Your task to perform on an android device: Open the calendar and show me this week's events? Image 0: 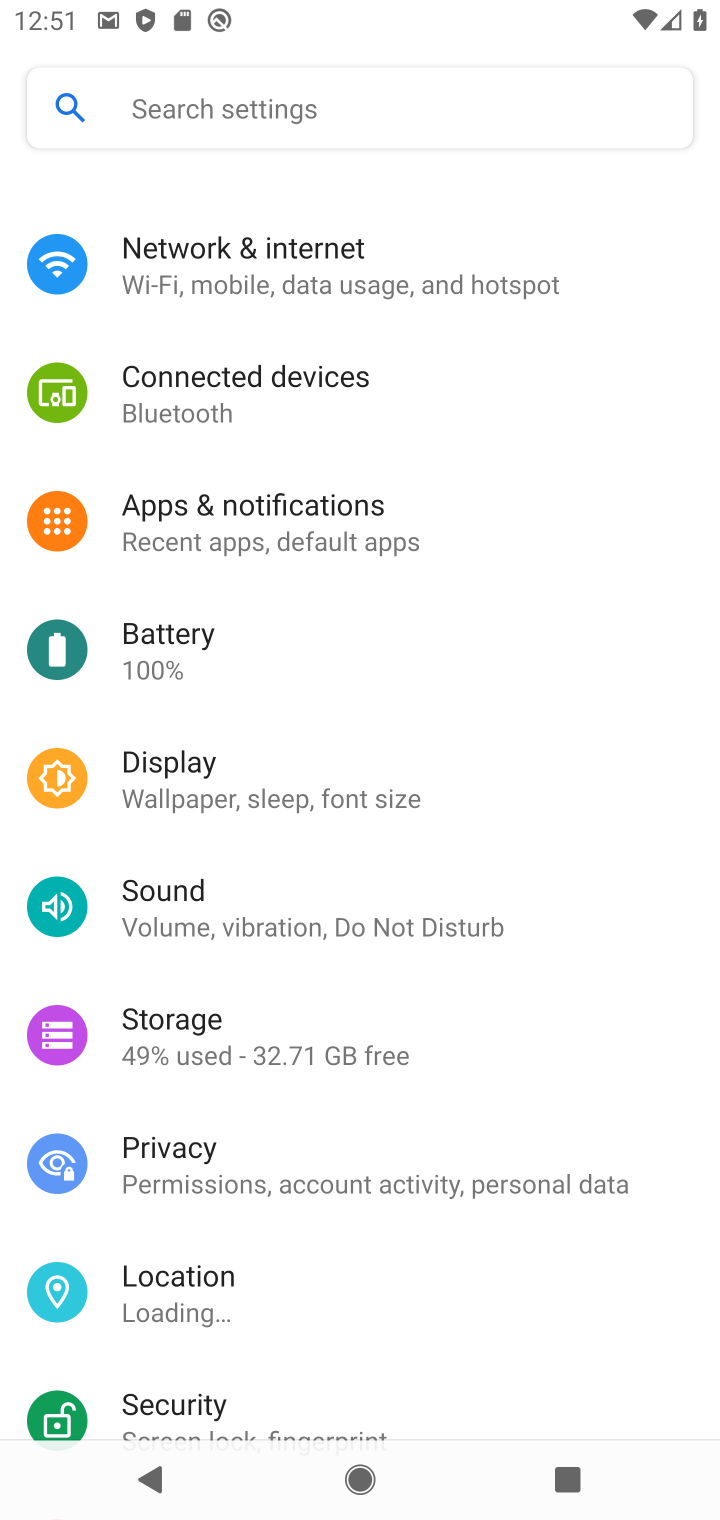
Step 0: press home button
Your task to perform on an android device: Open the calendar and show me this week's events? Image 1: 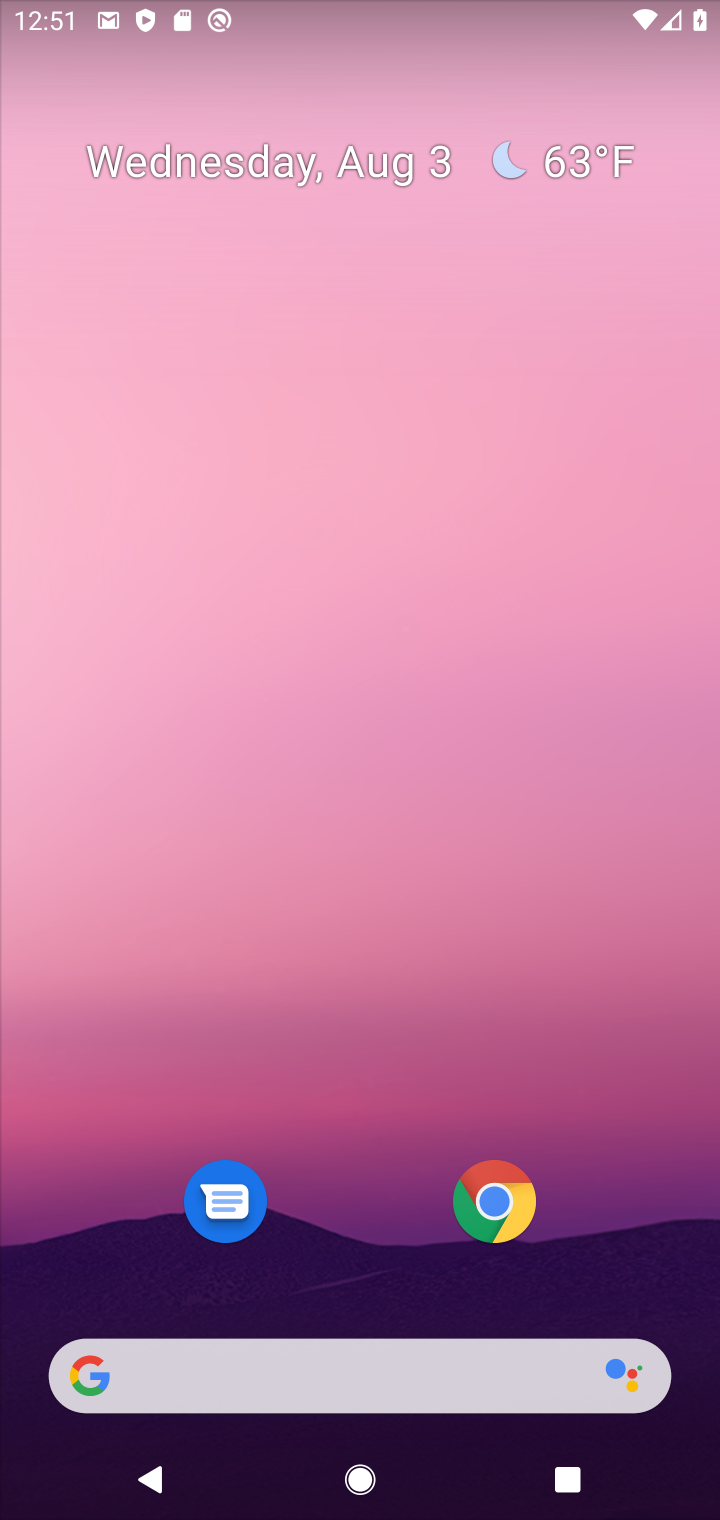
Step 1: drag from (404, 1030) to (486, 134)
Your task to perform on an android device: Open the calendar and show me this week's events? Image 2: 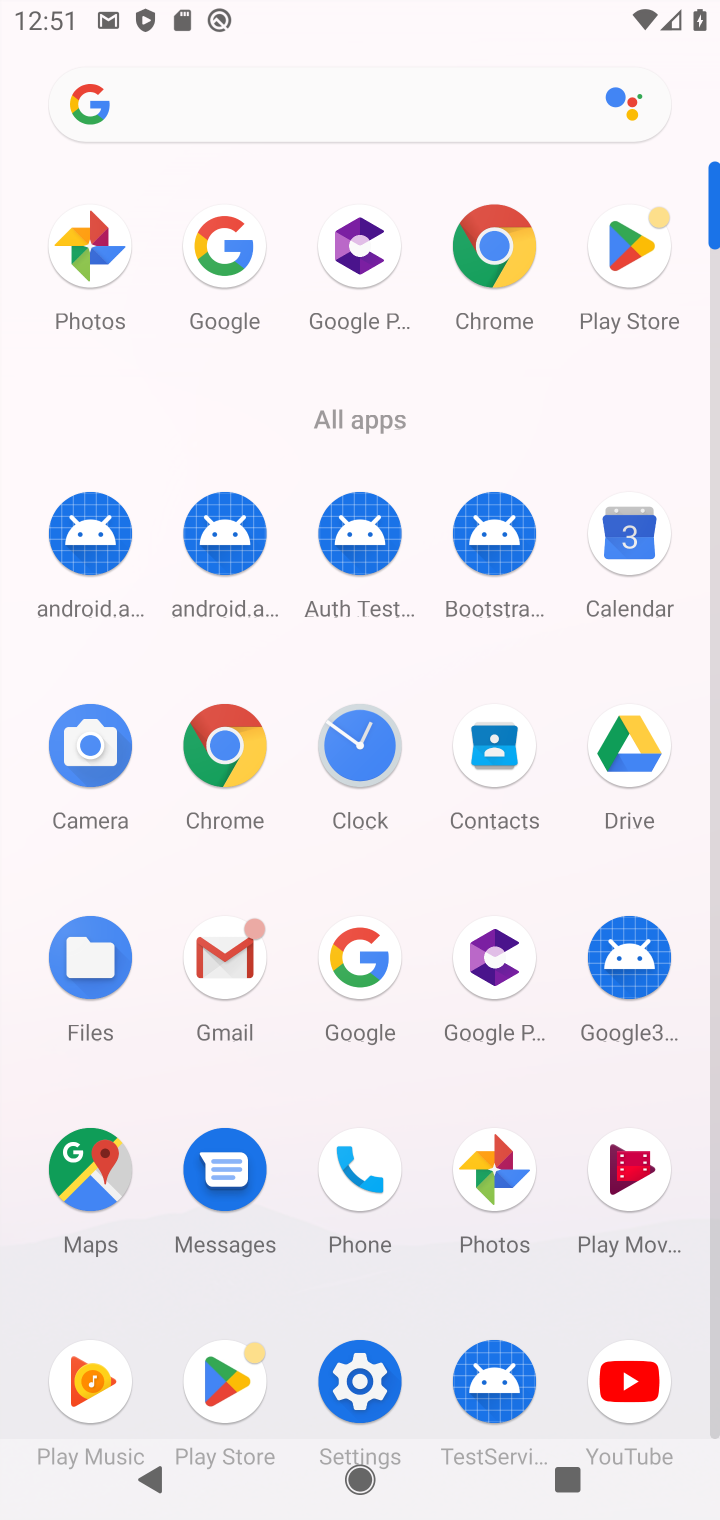
Step 2: click (634, 542)
Your task to perform on an android device: Open the calendar and show me this week's events? Image 3: 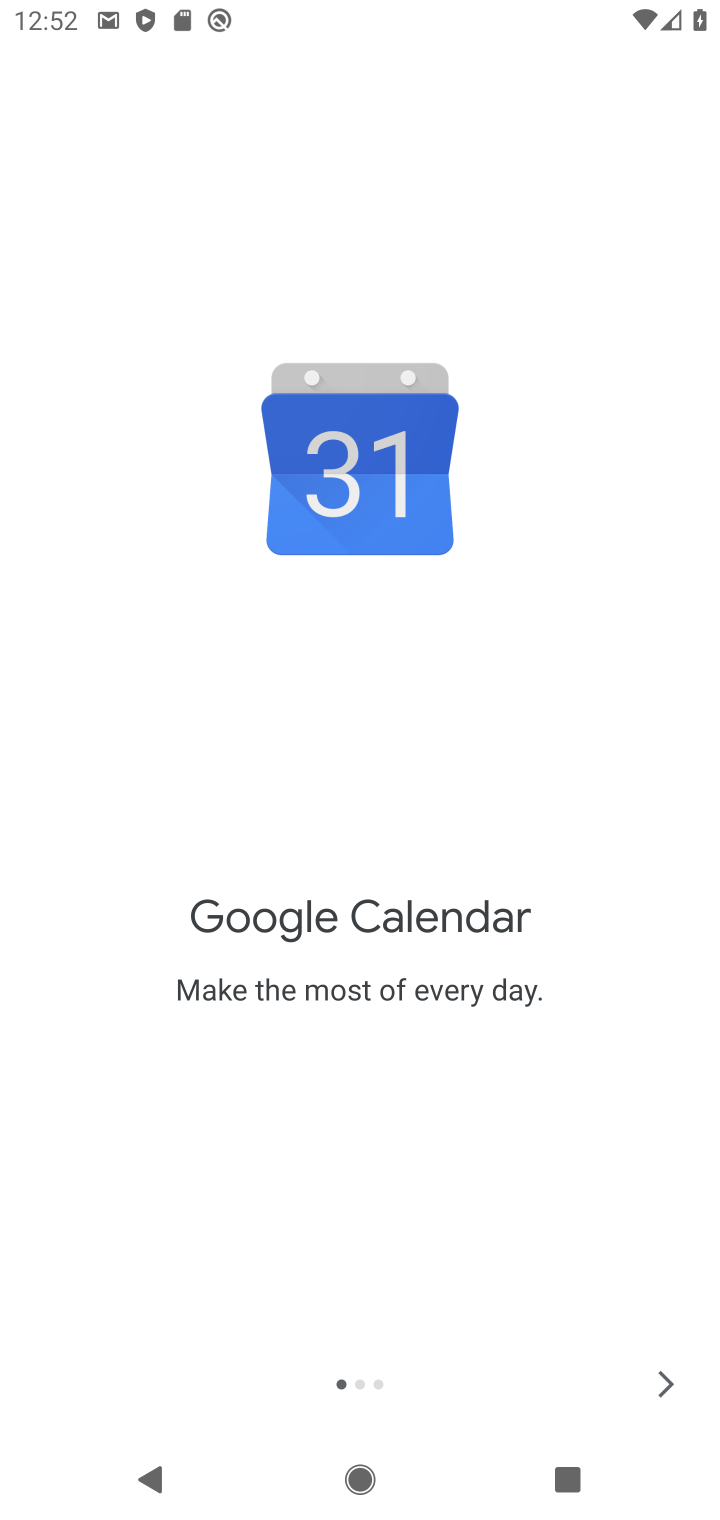
Step 3: click (665, 1389)
Your task to perform on an android device: Open the calendar and show me this week's events? Image 4: 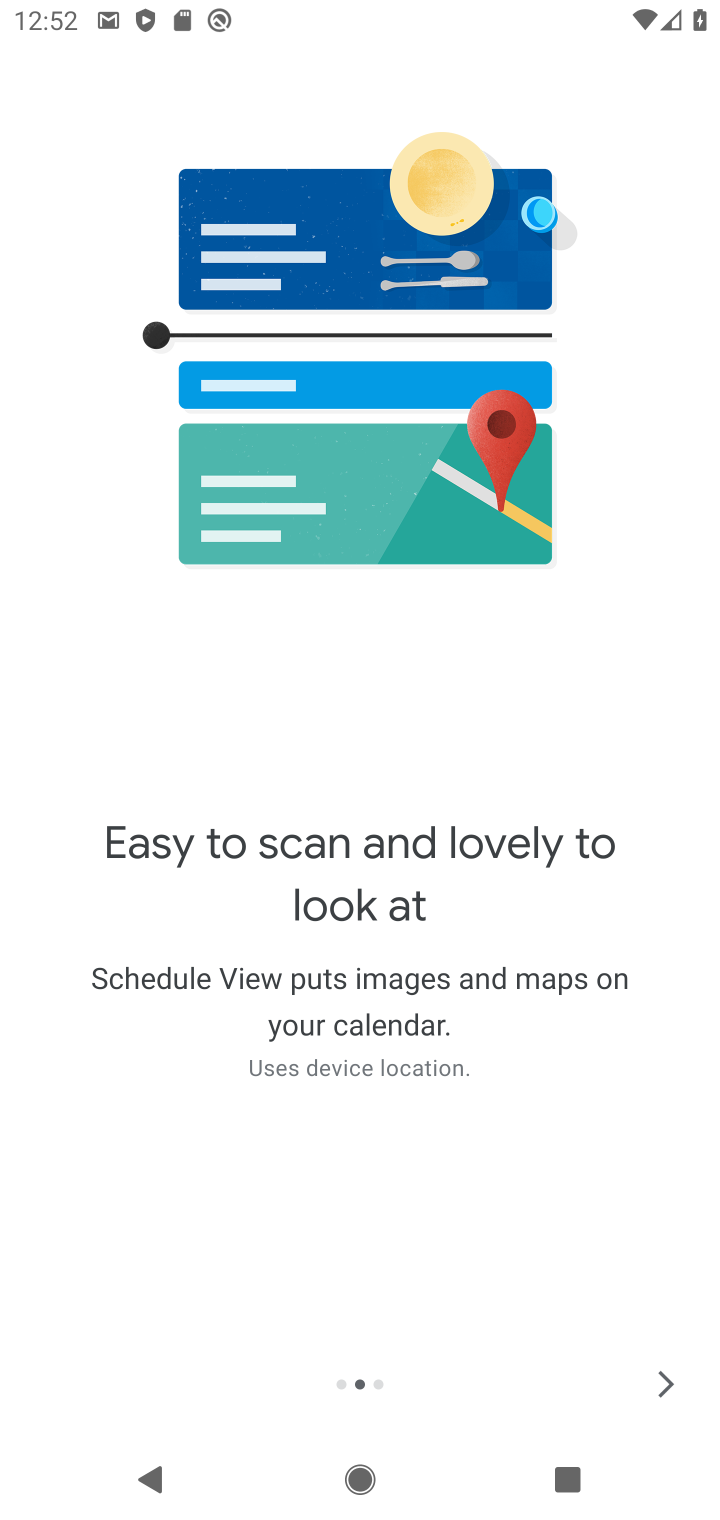
Step 4: click (665, 1389)
Your task to perform on an android device: Open the calendar and show me this week's events? Image 5: 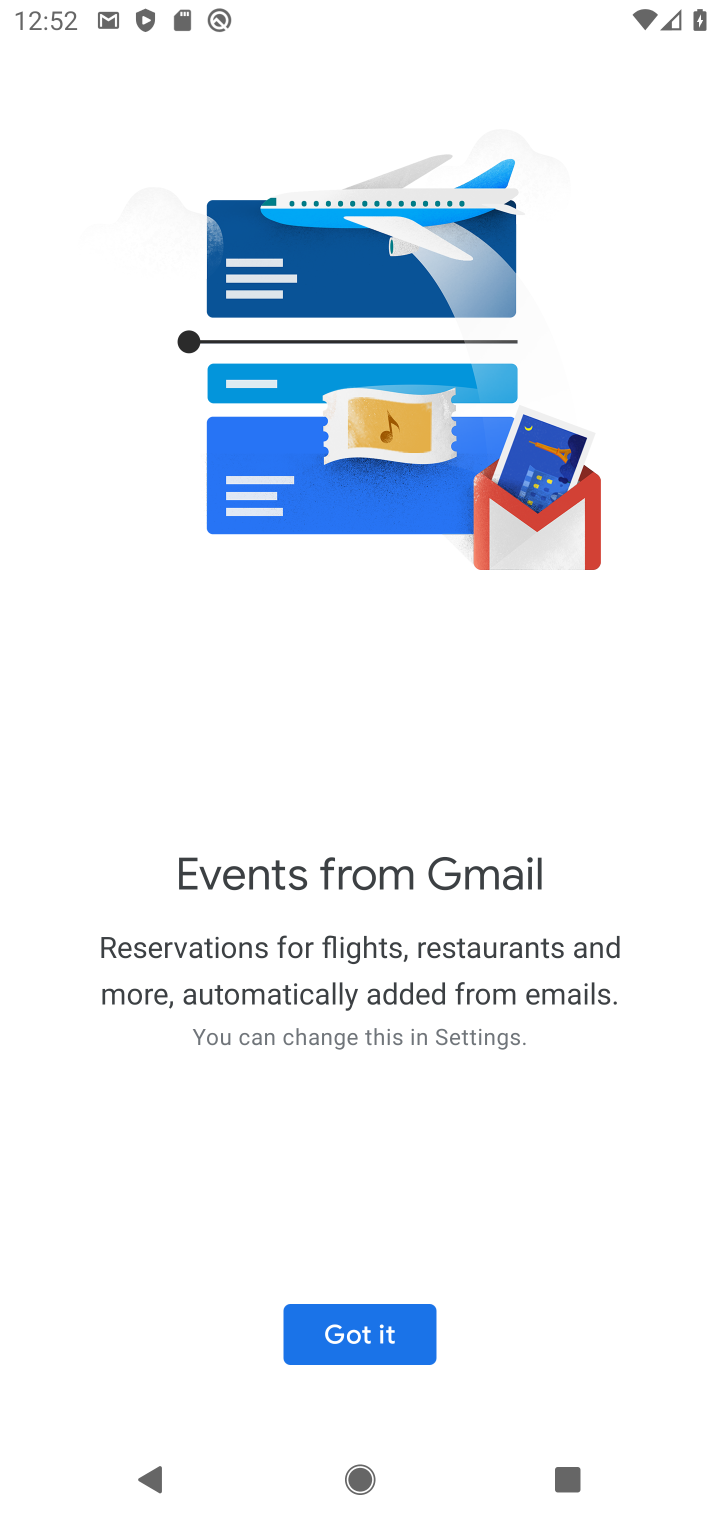
Step 5: click (384, 1321)
Your task to perform on an android device: Open the calendar and show me this week's events? Image 6: 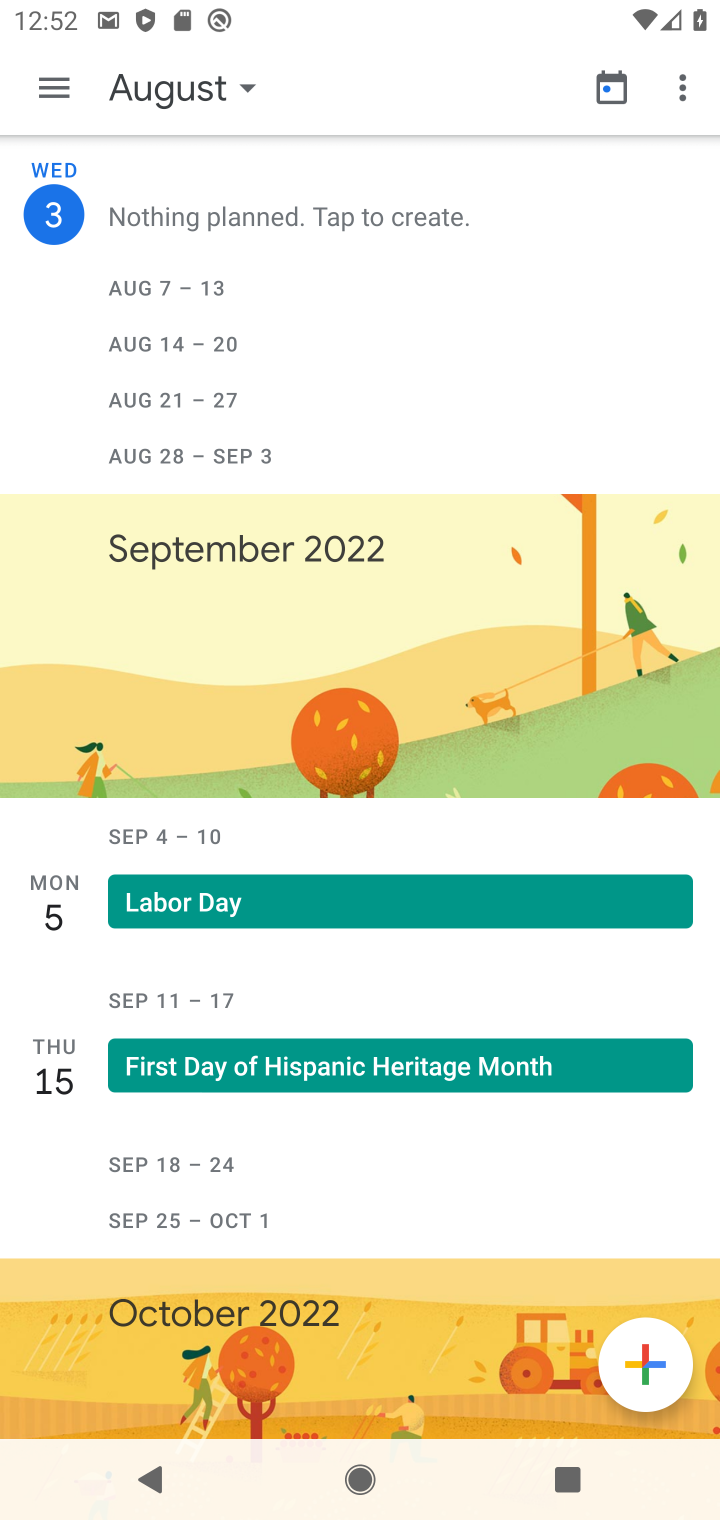
Step 6: click (149, 107)
Your task to perform on an android device: Open the calendar and show me this week's events? Image 7: 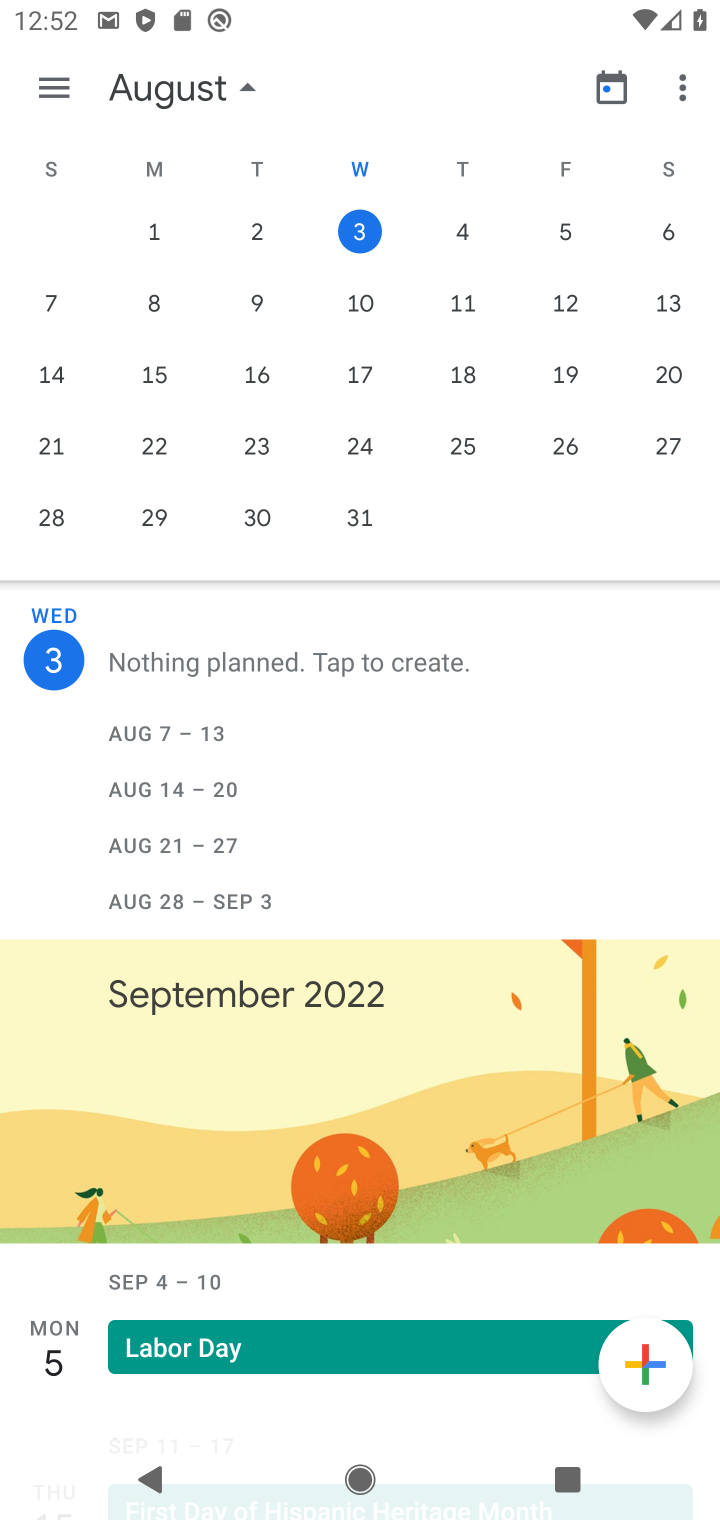
Step 7: click (42, 285)
Your task to perform on an android device: Open the calendar and show me this week's events? Image 8: 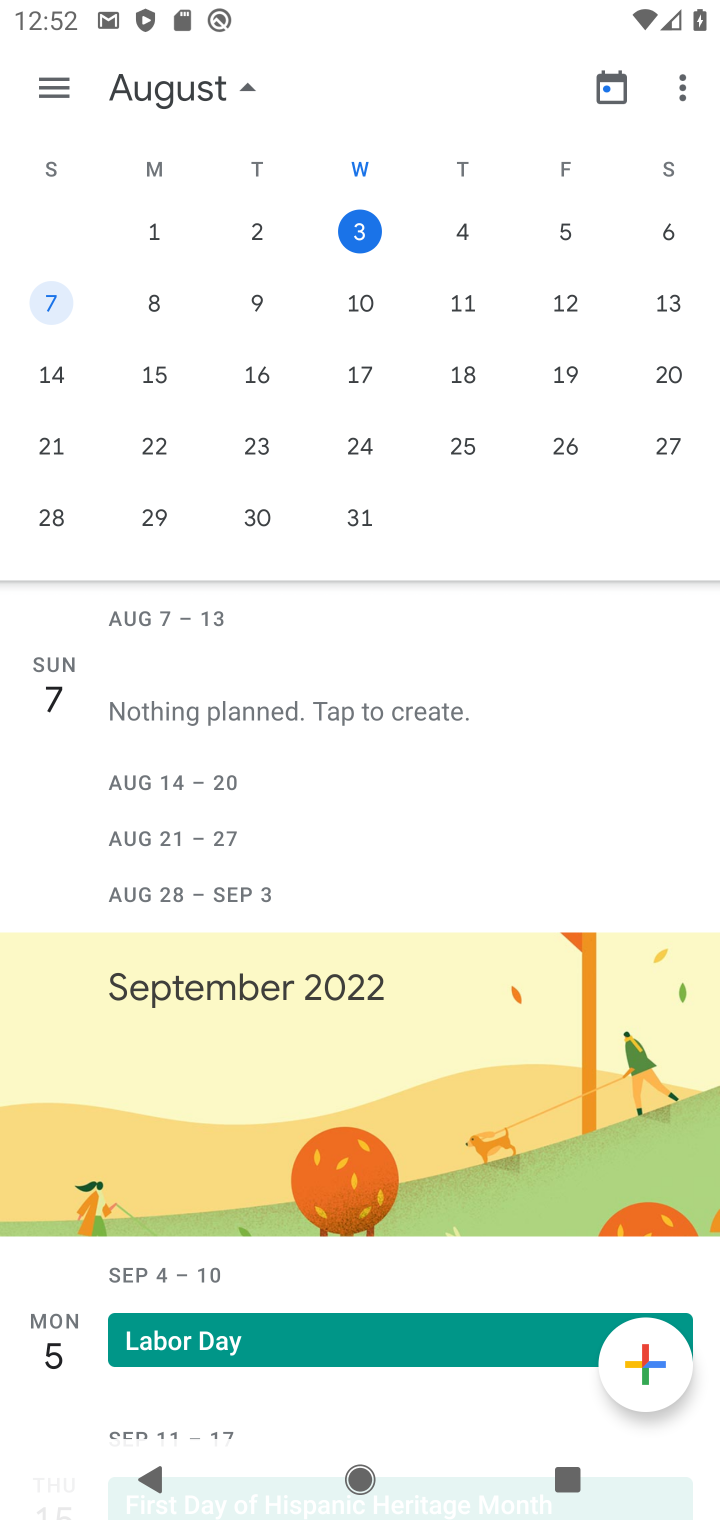
Step 8: click (42, 99)
Your task to perform on an android device: Open the calendar and show me this week's events? Image 9: 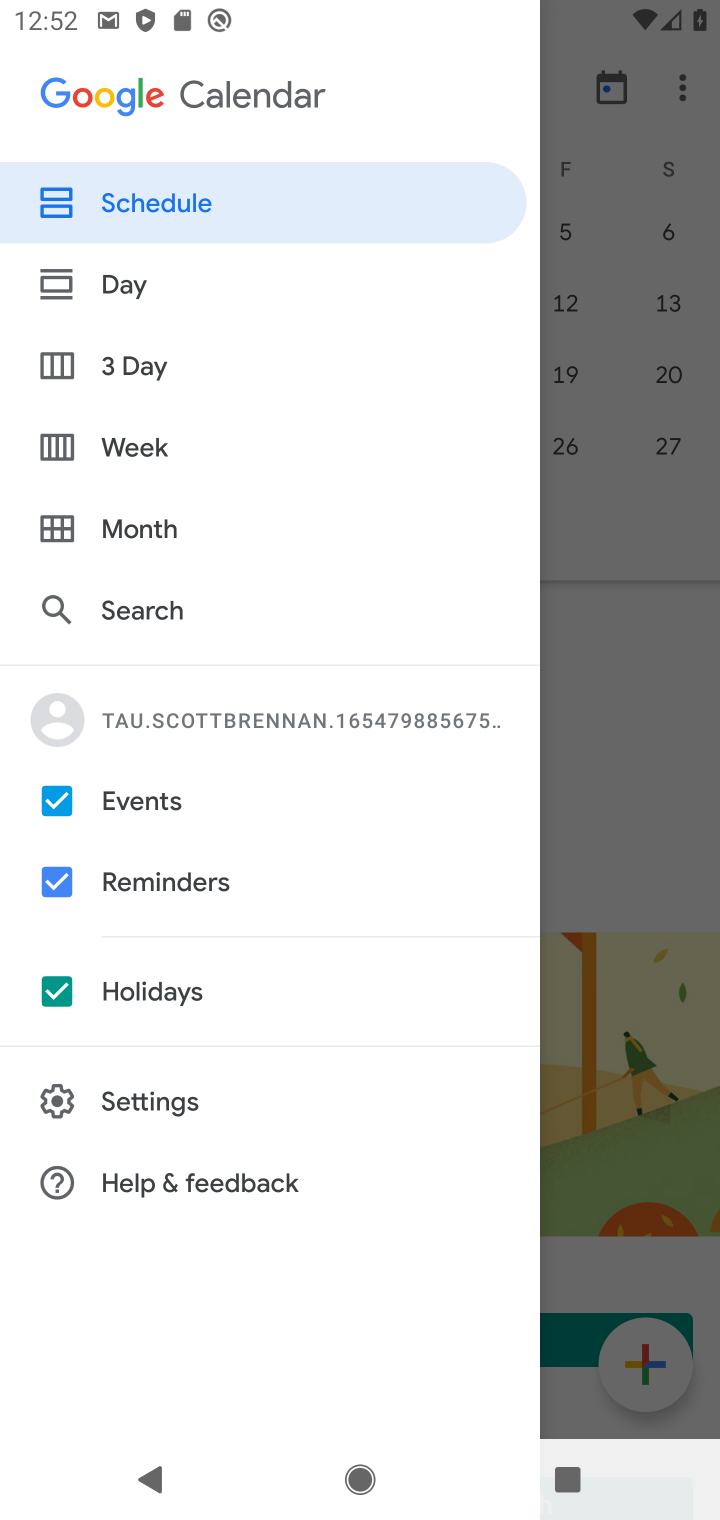
Step 9: click (113, 434)
Your task to perform on an android device: Open the calendar and show me this week's events? Image 10: 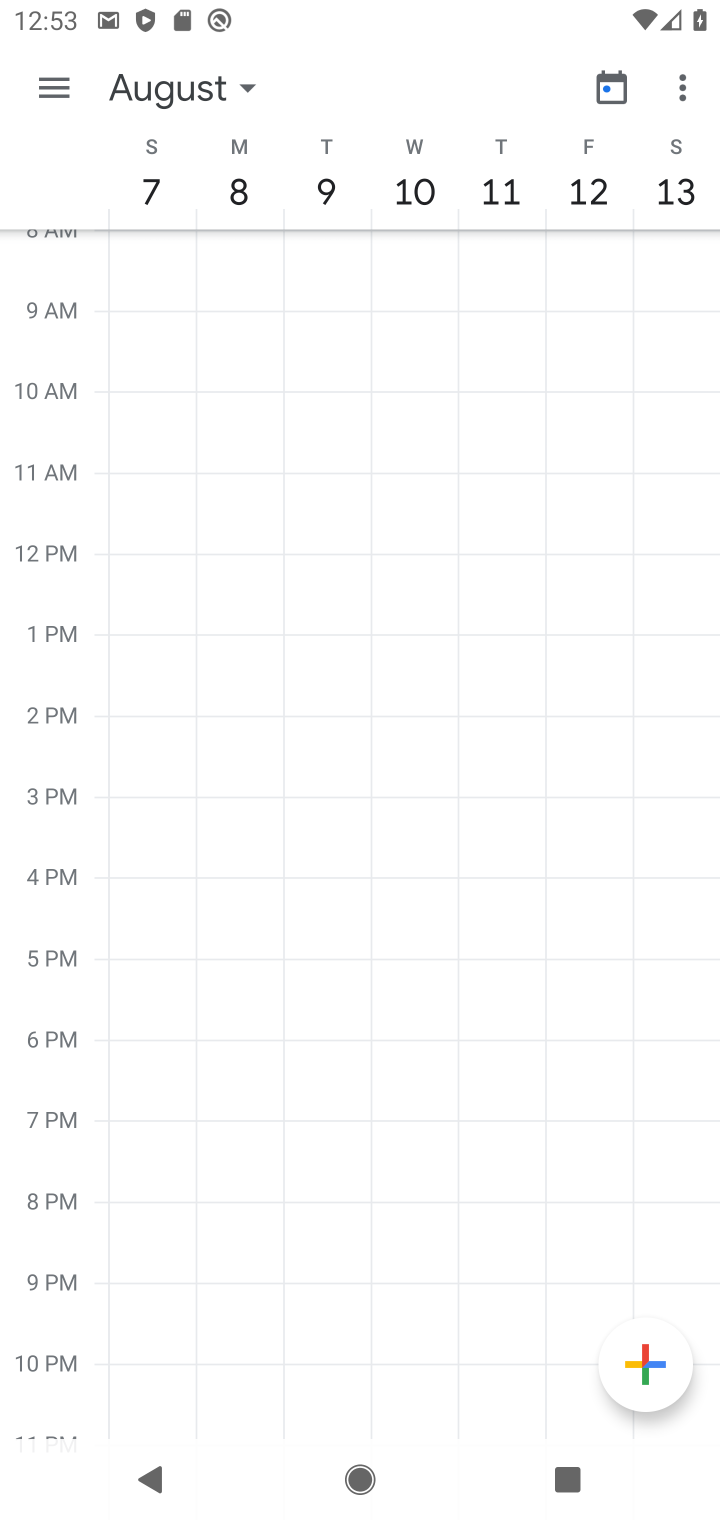
Step 10: click (57, 83)
Your task to perform on an android device: Open the calendar and show me this week's events? Image 11: 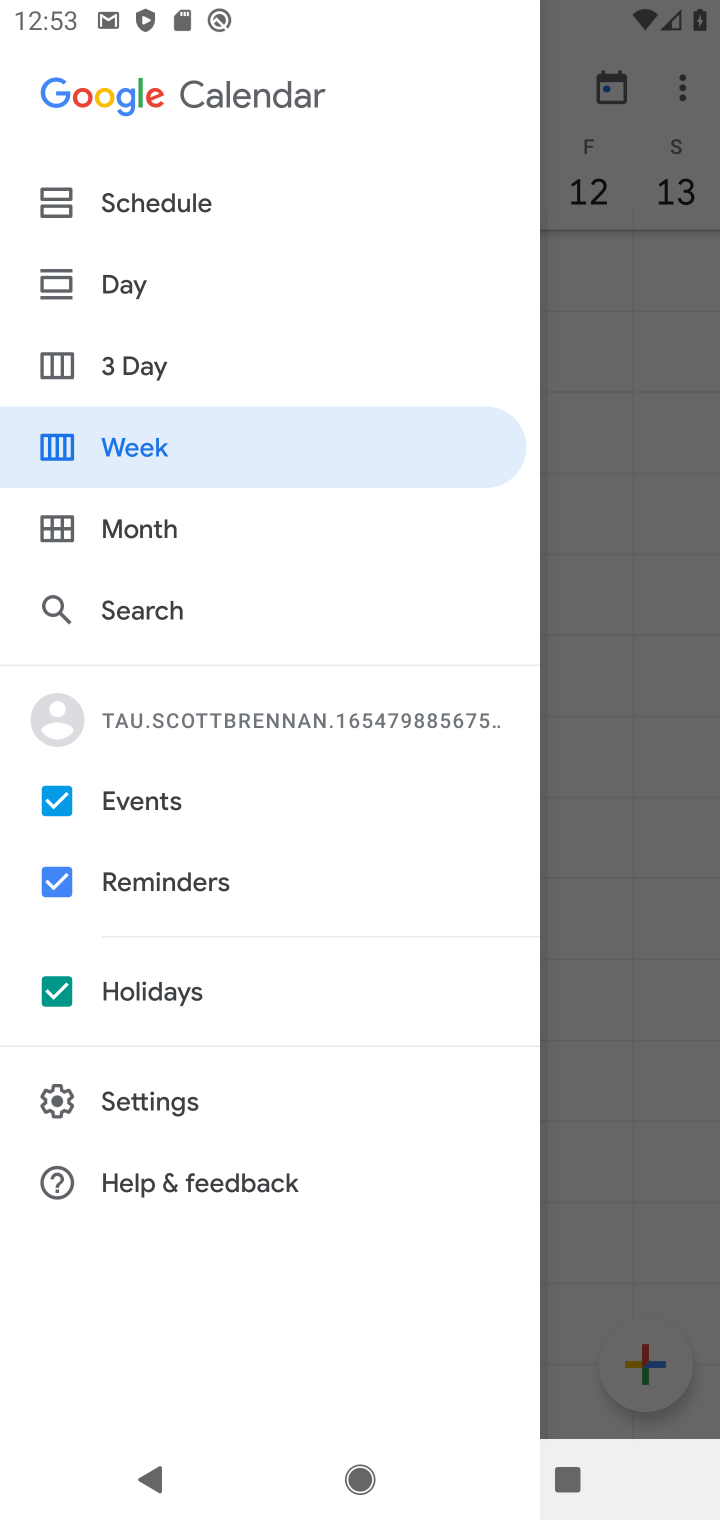
Step 11: click (188, 203)
Your task to perform on an android device: Open the calendar and show me this week's events? Image 12: 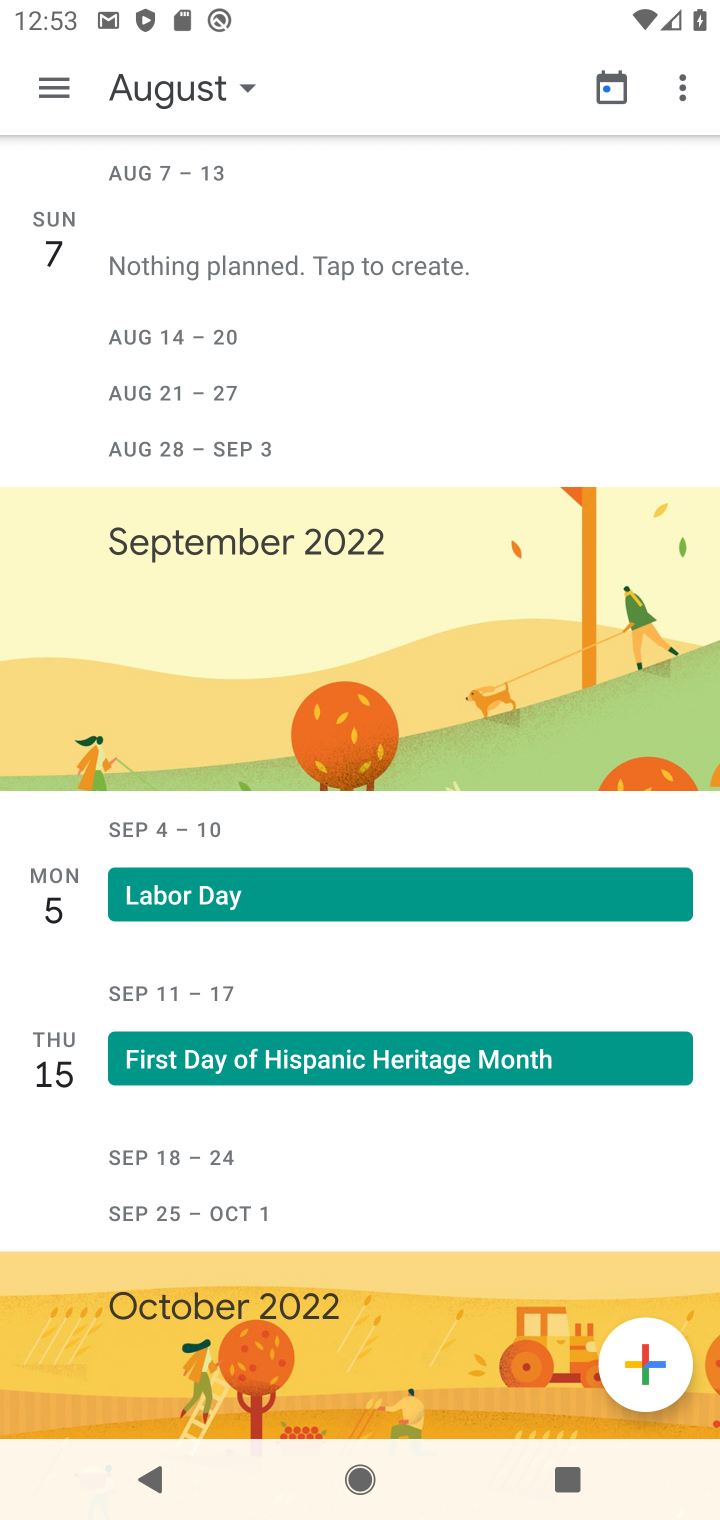
Step 12: task complete